Your task to perform on an android device: Search for Italian restaurants on Maps Image 0: 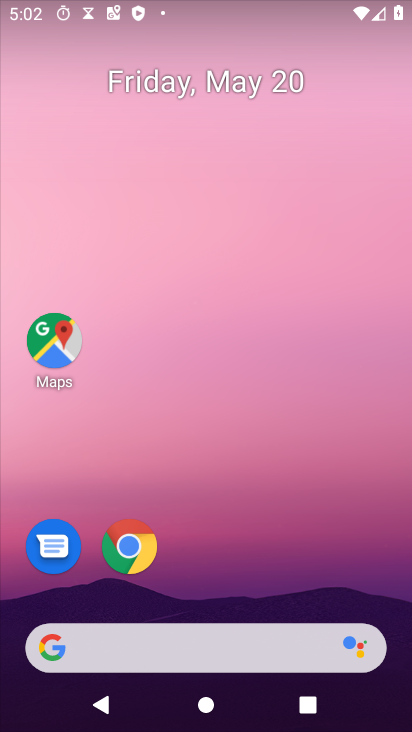
Step 0: click (52, 341)
Your task to perform on an android device: Search for Italian restaurants on Maps Image 1: 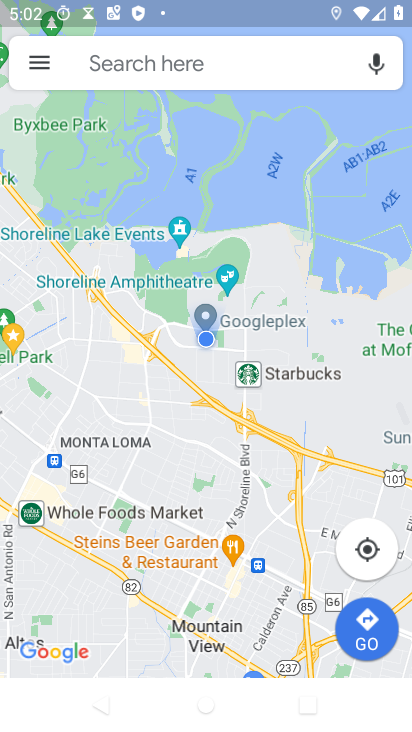
Step 1: click (160, 74)
Your task to perform on an android device: Search for Italian restaurants on Maps Image 2: 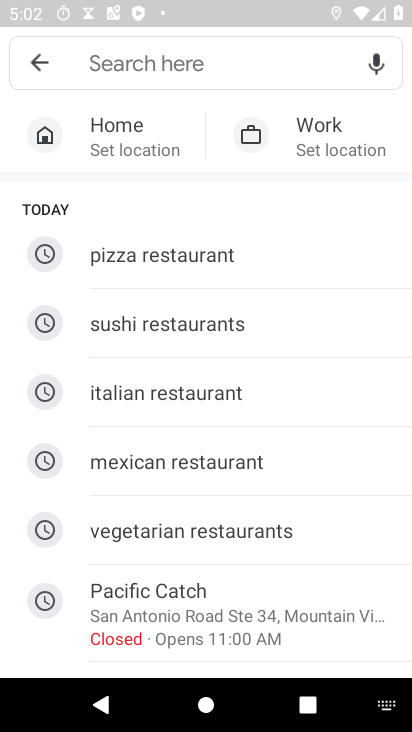
Step 2: type "Italian restaurants"
Your task to perform on an android device: Search for Italian restaurants on Maps Image 3: 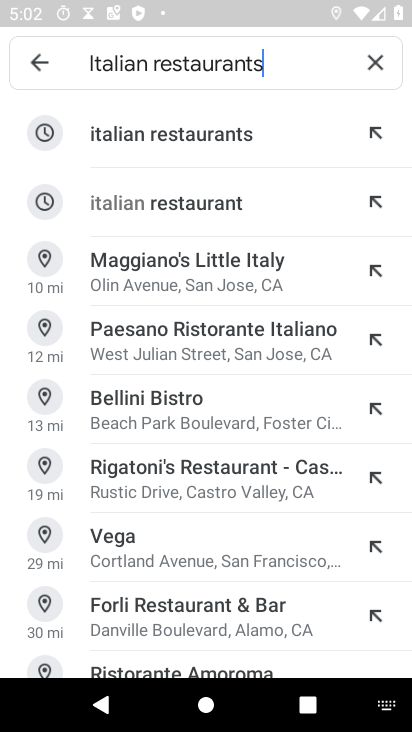
Step 3: click (187, 139)
Your task to perform on an android device: Search for Italian restaurants on Maps Image 4: 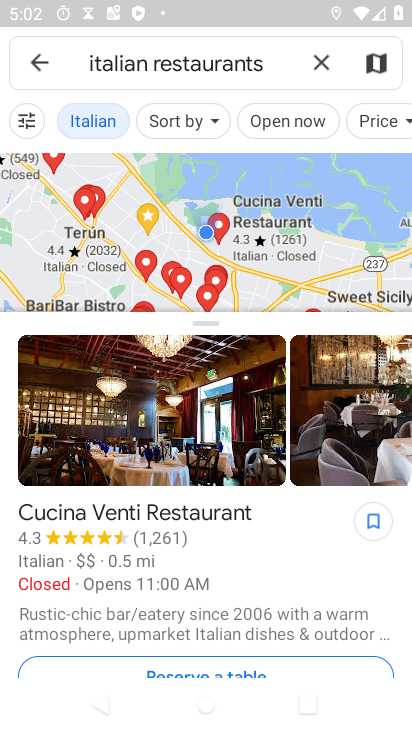
Step 4: task complete